Your task to perform on an android device: empty trash in the gmail app Image 0: 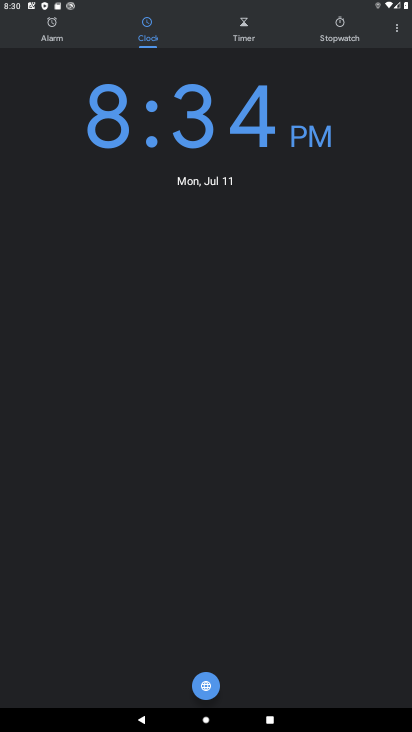
Step 0: press home button
Your task to perform on an android device: empty trash in the gmail app Image 1: 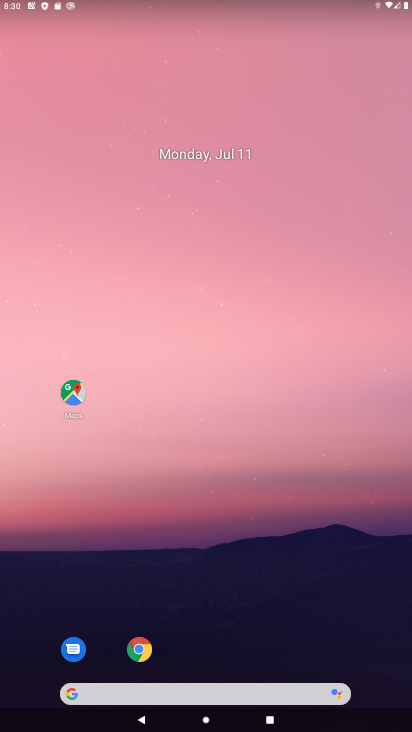
Step 1: drag from (202, 640) to (265, 118)
Your task to perform on an android device: empty trash in the gmail app Image 2: 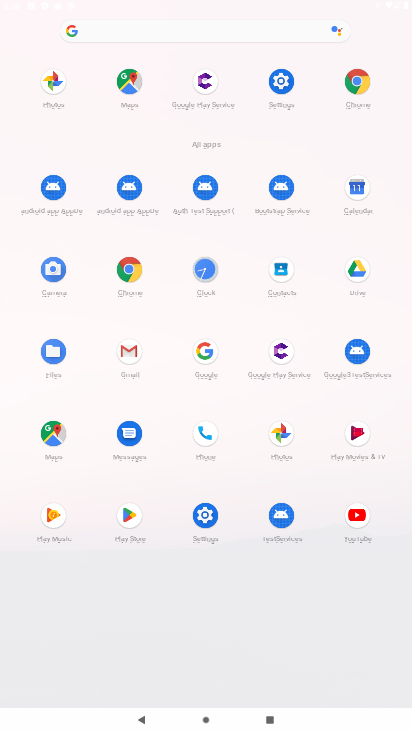
Step 2: click (142, 335)
Your task to perform on an android device: empty trash in the gmail app Image 3: 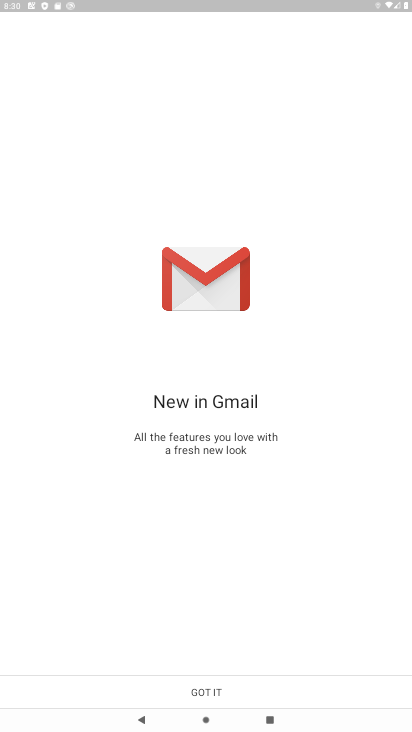
Step 3: click (259, 682)
Your task to perform on an android device: empty trash in the gmail app Image 4: 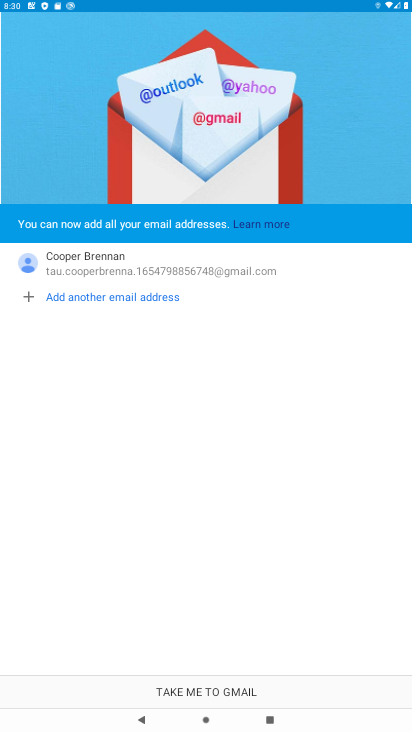
Step 4: click (243, 687)
Your task to perform on an android device: empty trash in the gmail app Image 5: 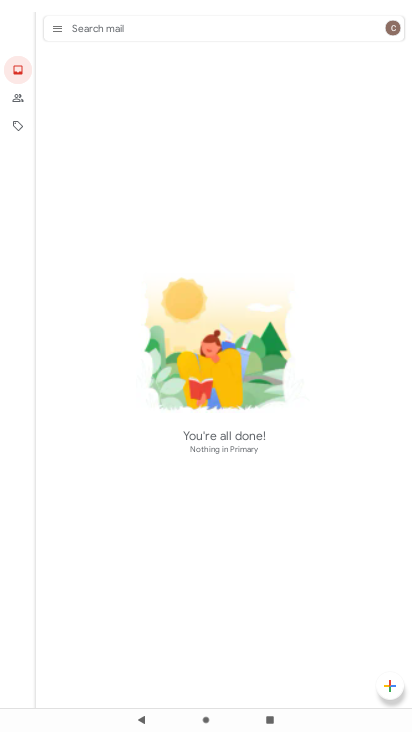
Step 5: click (62, 27)
Your task to perform on an android device: empty trash in the gmail app Image 6: 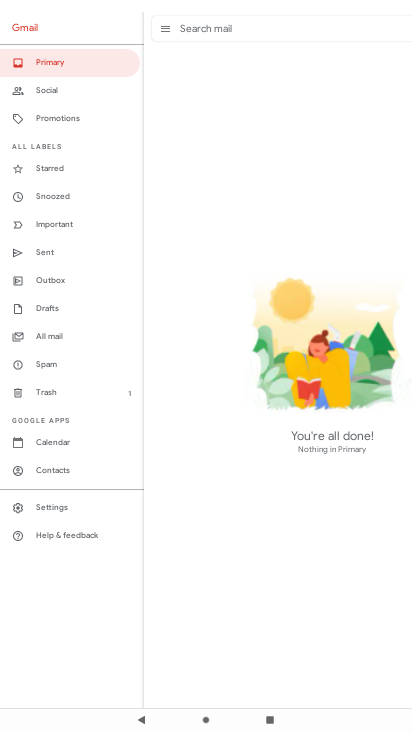
Step 6: click (58, 389)
Your task to perform on an android device: empty trash in the gmail app Image 7: 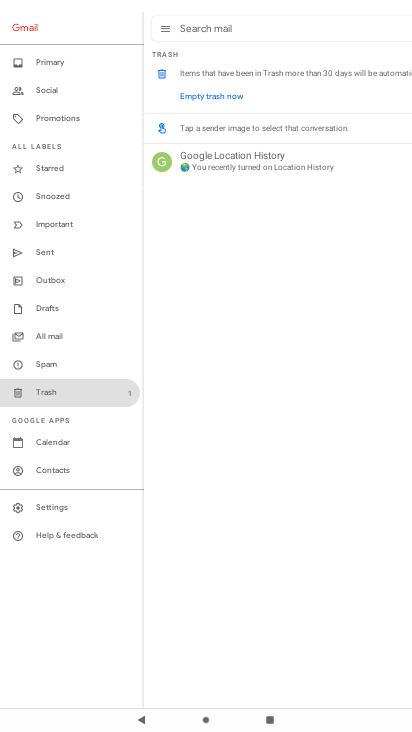
Step 7: click (234, 97)
Your task to perform on an android device: empty trash in the gmail app Image 8: 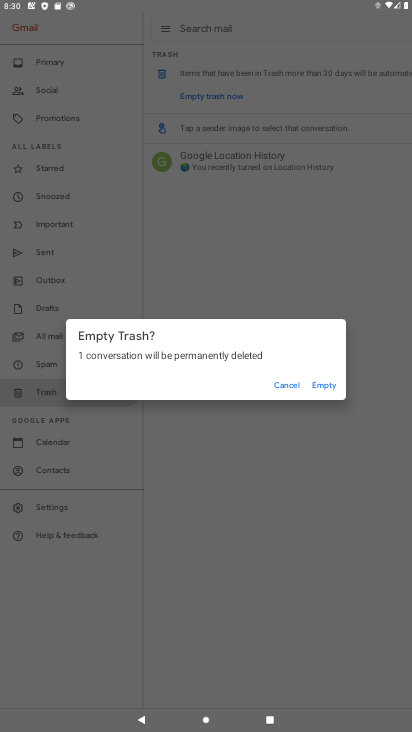
Step 8: click (329, 380)
Your task to perform on an android device: empty trash in the gmail app Image 9: 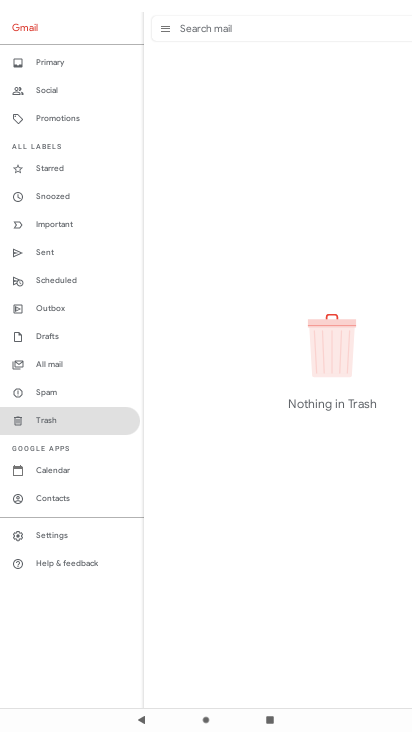
Step 9: task complete